Your task to perform on an android device: Open sound settings Image 0: 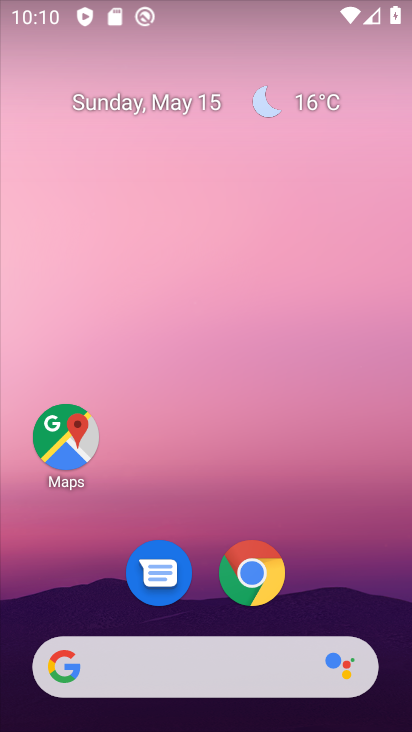
Step 0: drag from (305, 611) to (251, 132)
Your task to perform on an android device: Open sound settings Image 1: 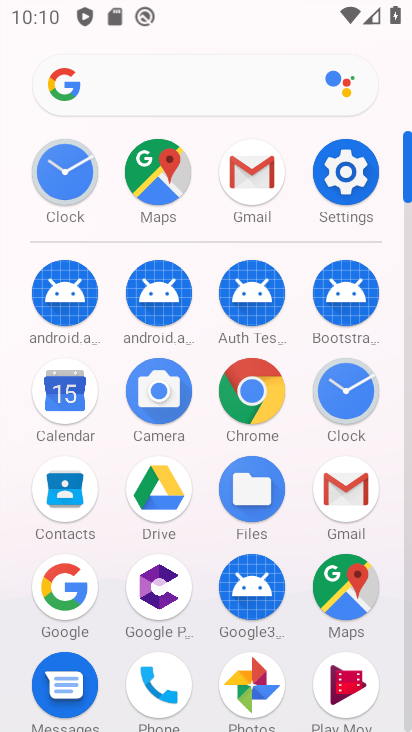
Step 1: click (343, 179)
Your task to perform on an android device: Open sound settings Image 2: 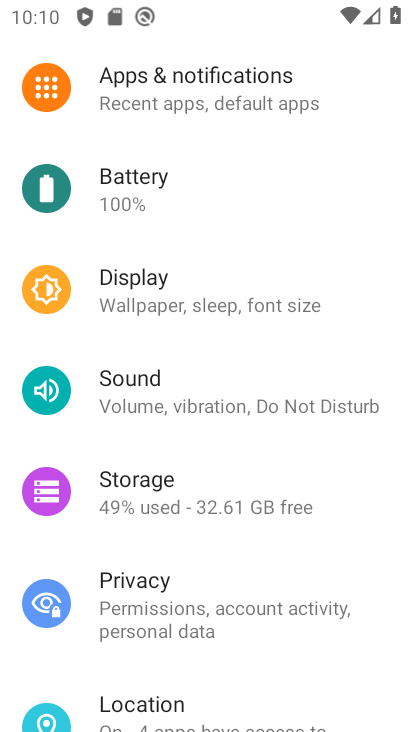
Step 2: click (139, 408)
Your task to perform on an android device: Open sound settings Image 3: 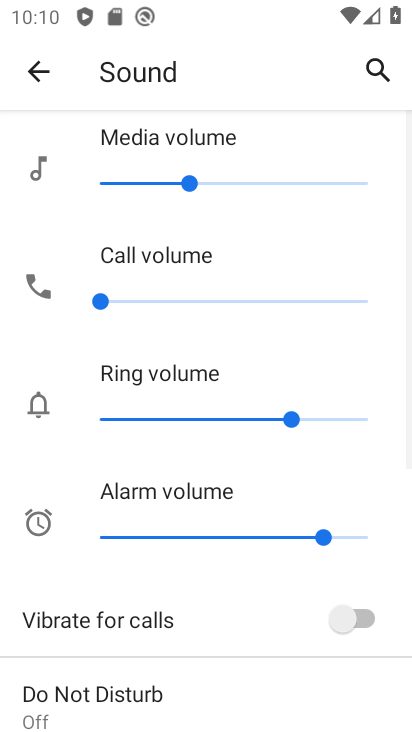
Step 3: task complete